Your task to perform on an android device: Open calendar and show me the fourth week of next month Image 0: 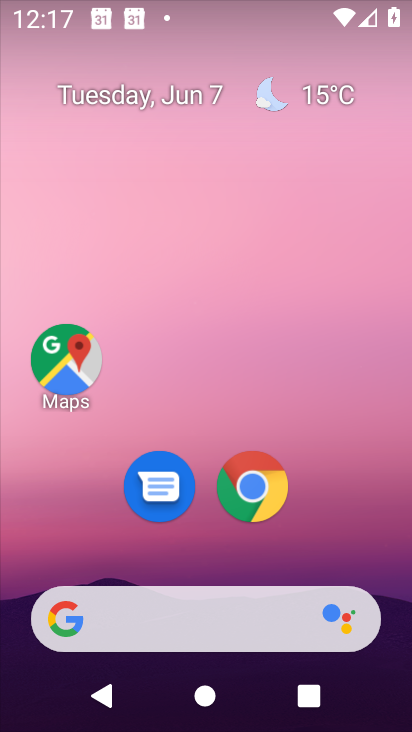
Step 0: drag from (307, 518) to (153, 15)
Your task to perform on an android device: Open calendar and show me the fourth week of next month Image 1: 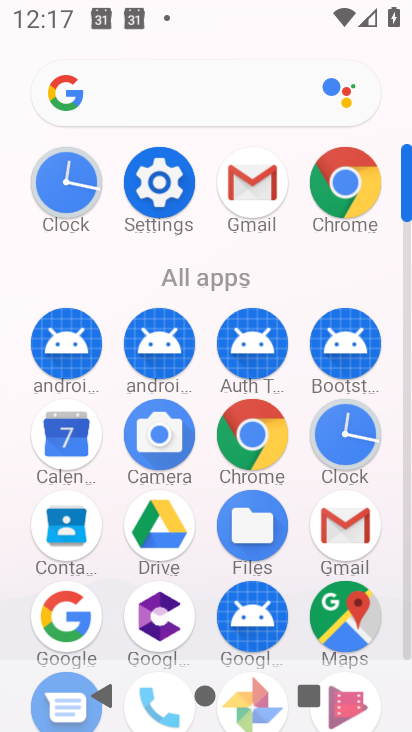
Step 1: click (75, 452)
Your task to perform on an android device: Open calendar and show me the fourth week of next month Image 2: 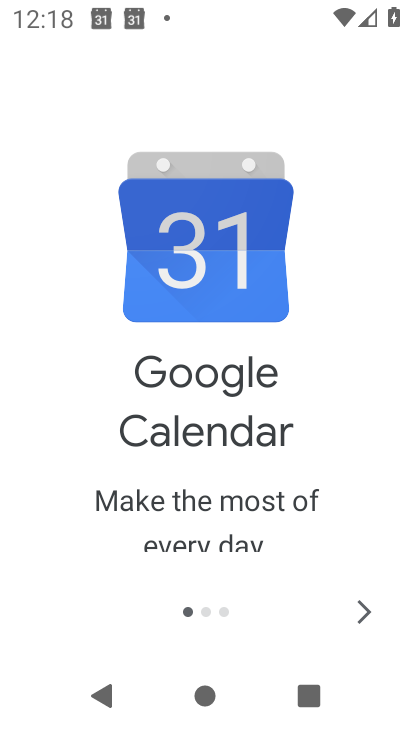
Step 2: click (361, 611)
Your task to perform on an android device: Open calendar and show me the fourth week of next month Image 3: 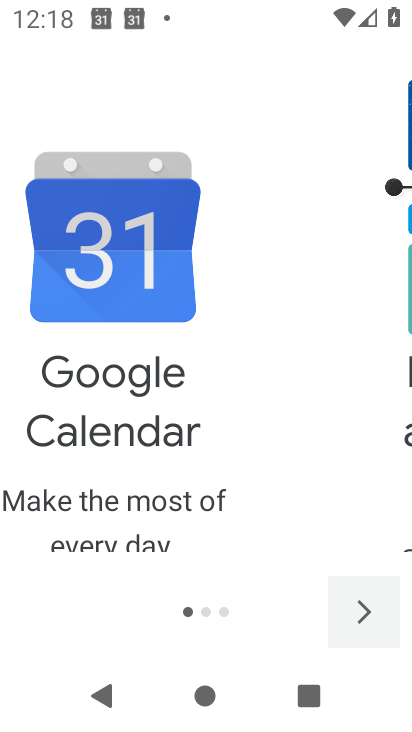
Step 3: click (361, 611)
Your task to perform on an android device: Open calendar and show me the fourth week of next month Image 4: 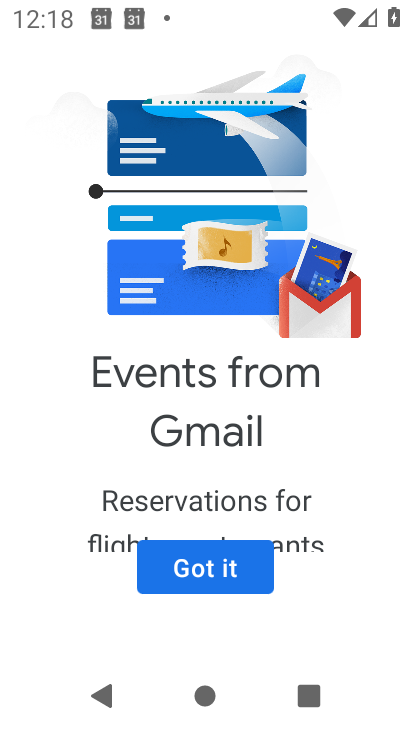
Step 4: click (242, 578)
Your task to perform on an android device: Open calendar and show me the fourth week of next month Image 5: 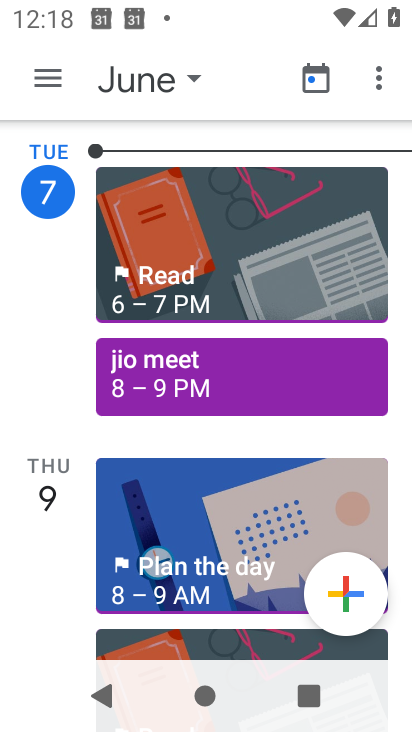
Step 5: click (50, 70)
Your task to perform on an android device: Open calendar and show me the fourth week of next month Image 6: 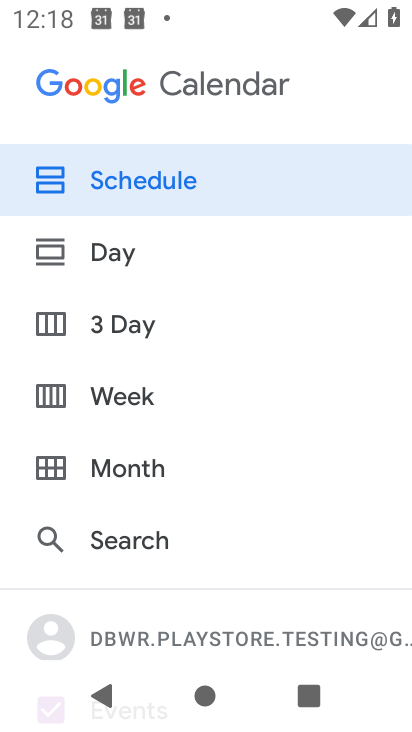
Step 6: click (50, 77)
Your task to perform on an android device: Open calendar and show me the fourth week of next month Image 7: 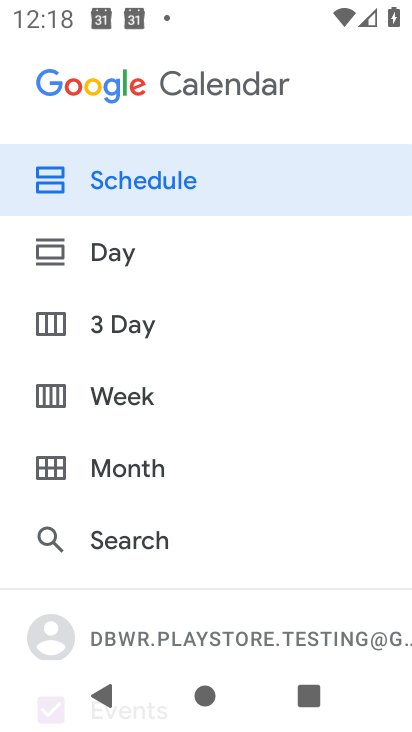
Step 7: click (177, 394)
Your task to perform on an android device: Open calendar and show me the fourth week of next month Image 8: 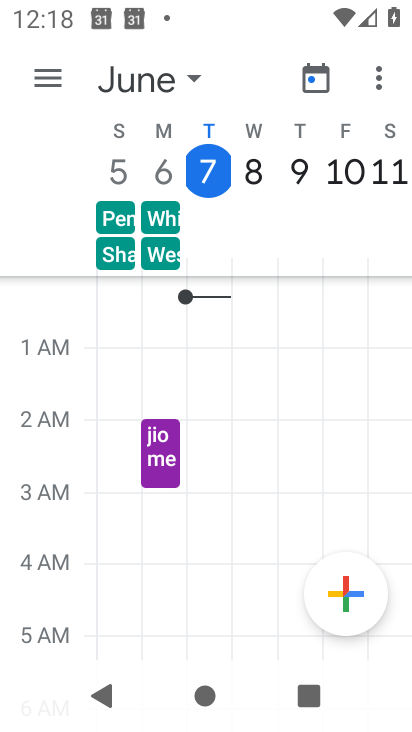
Step 8: click (178, 77)
Your task to perform on an android device: Open calendar and show me the fourth week of next month Image 9: 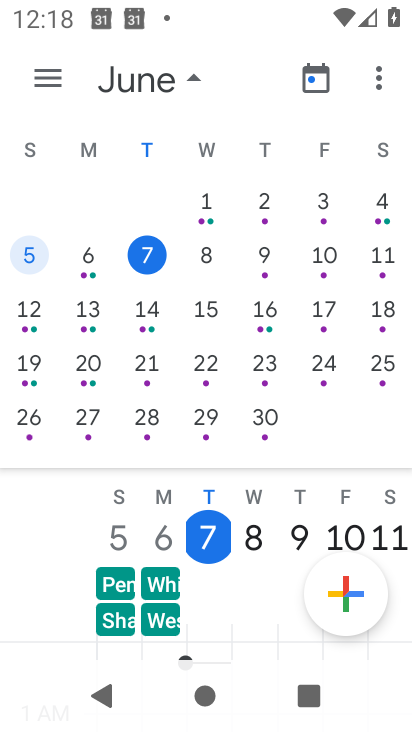
Step 9: drag from (345, 302) to (9, 285)
Your task to perform on an android device: Open calendar and show me the fourth week of next month Image 10: 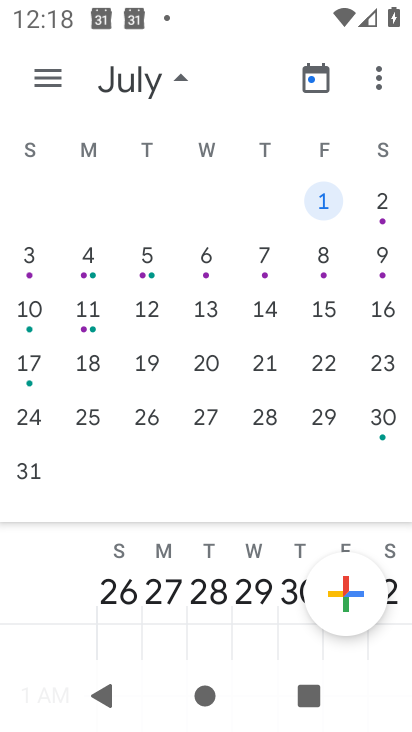
Step 10: click (36, 364)
Your task to perform on an android device: Open calendar and show me the fourth week of next month Image 11: 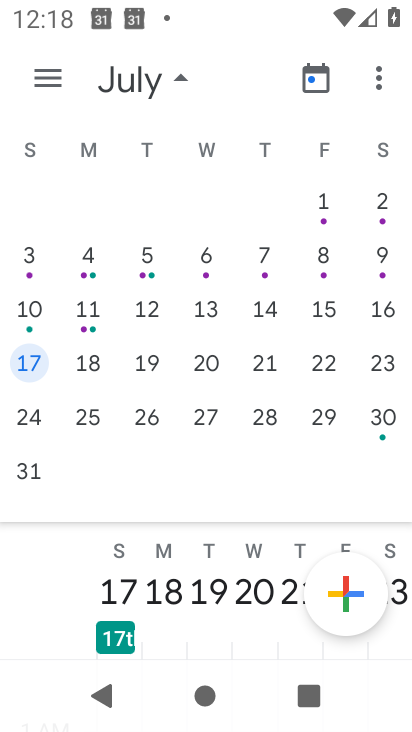
Step 11: task complete